Your task to perform on an android device: Go to Amazon Image 0: 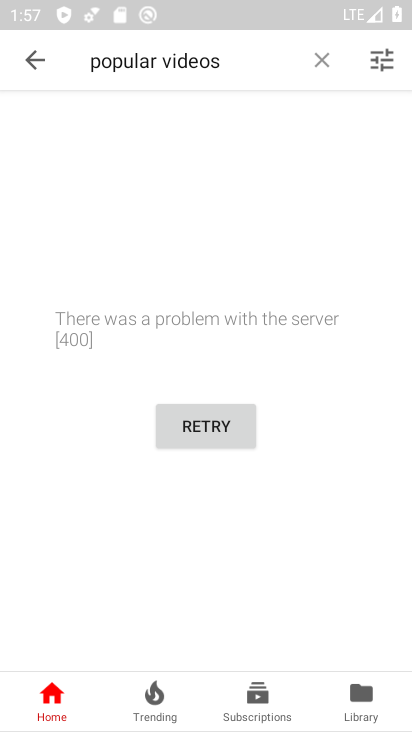
Step 0: press home button
Your task to perform on an android device: Go to Amazon Image 1: 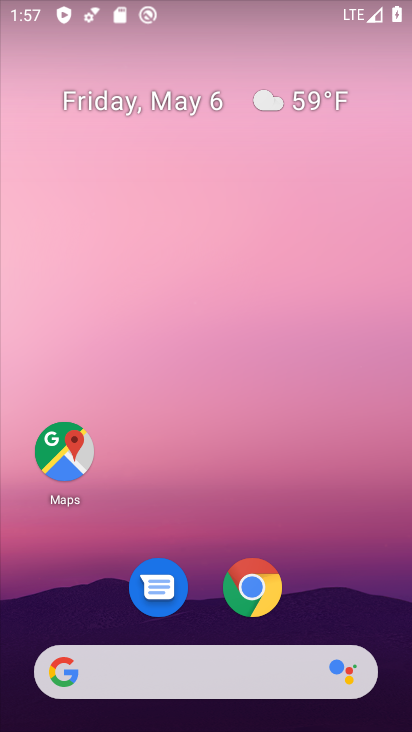
Step 1: drag from (371, 619) to (357, 140)
Your task to perform on an android device: Go to Amazon Image 2: 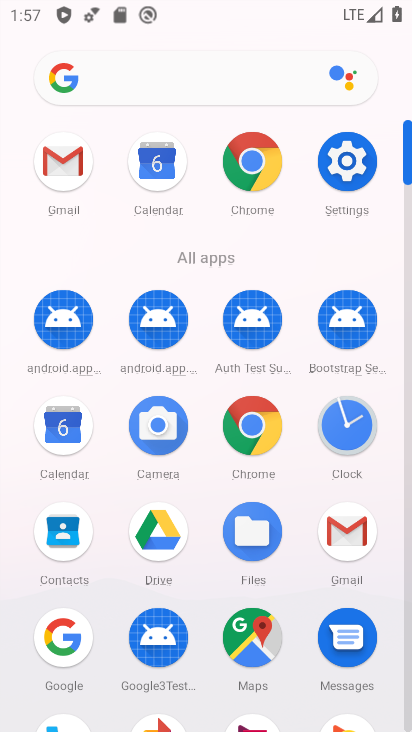
Step 2: click (267, 145)
Your task to perform on an android device: Go to Amazon Image 3: 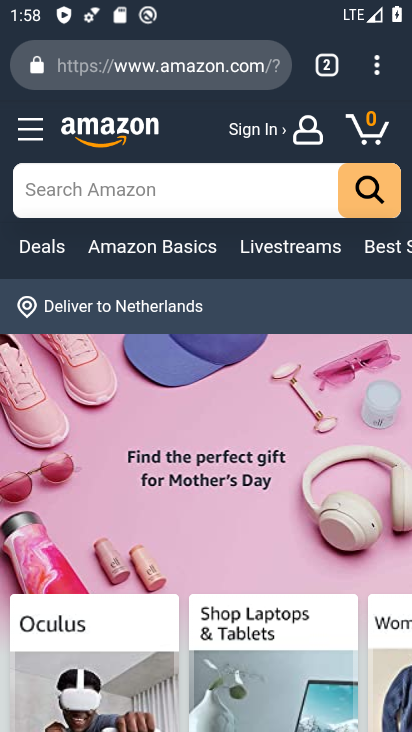
Step 3: task complete